Your task to perform on an android device: Open CNN.com Image 0: 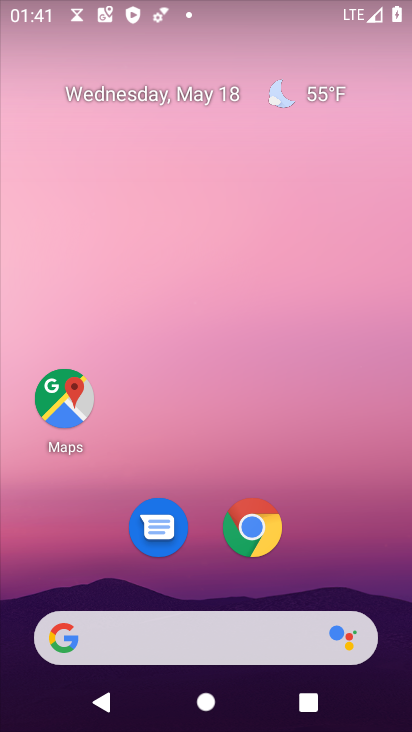
Step 0: click (257, 535)
Your task to perform on an android device: Open CNN.com Image 1: 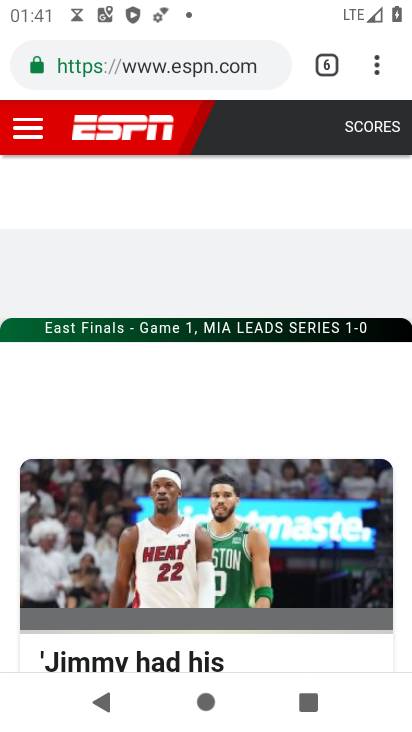
Step 1: click (315, 63)
Your task to perform on an android device: Open CNN.com Image 2: 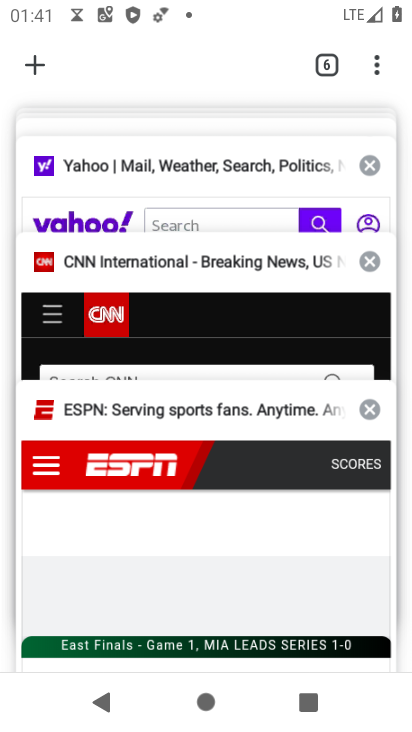
Step 2: click (96, 257)
Your task to perform on an android device: Open CNN.com Image 3: 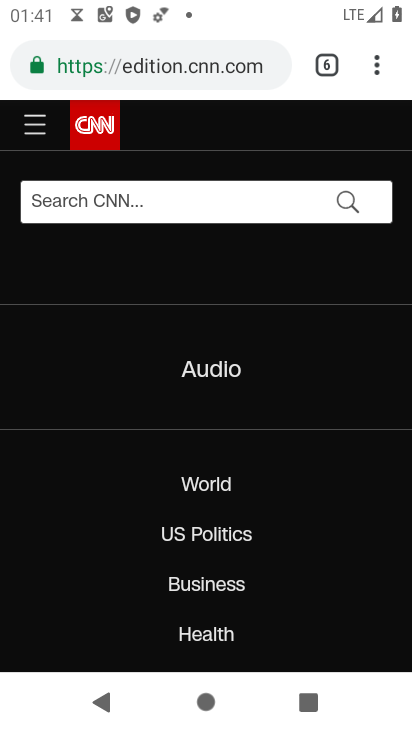
Step 3: task complete